Your task to perform on an android device: Go to ESPN.com Image 0: 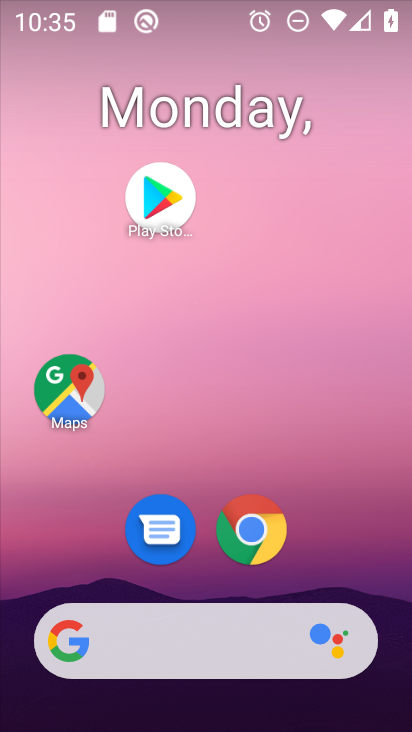
Step 0: click (250, 531)
Your task to perform on an android device: Go to ESPN.com Image 1: 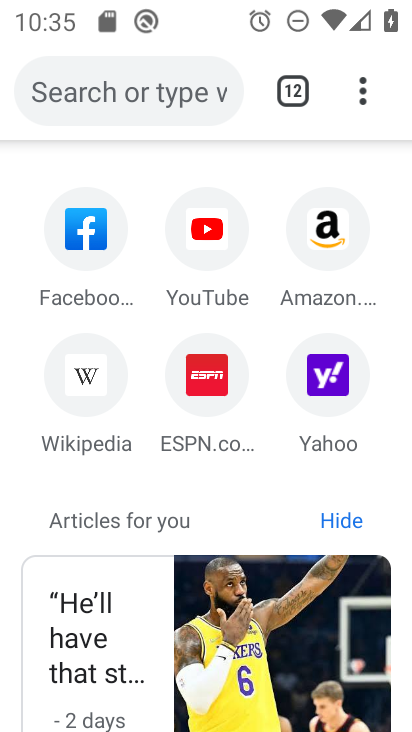
Step 1: click (205, 383)
Your task to perform on an android device: Go to ESPN.com Image 2: 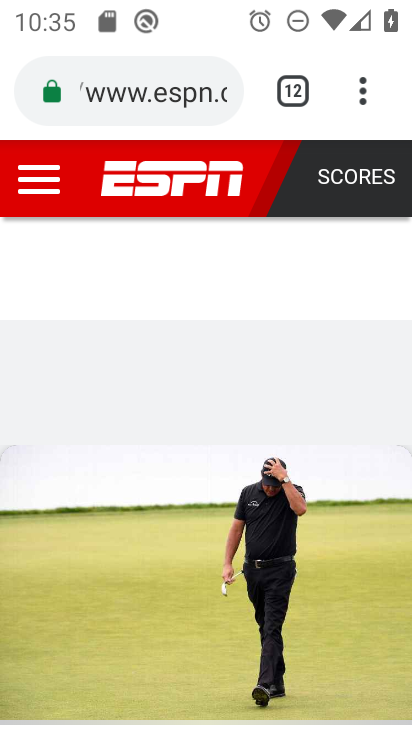
Step 2: task complete